Your task to perform on an android device: open sync settings in chrome Image 0: 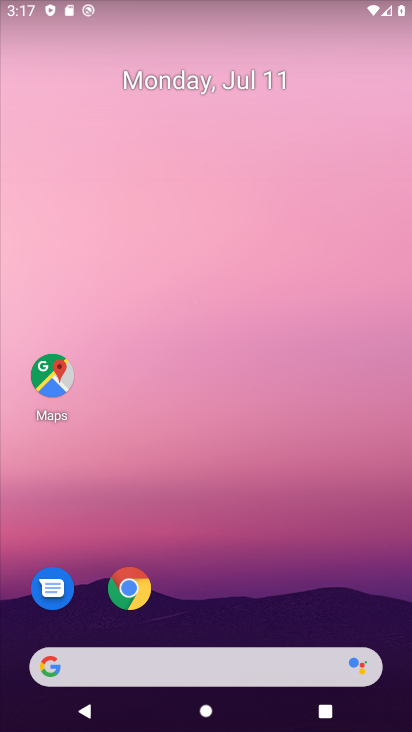
Step 0: drag from (360, 562) to (344, 81)
Your task to perform on an android device: open sync settings in chrome Image 1: 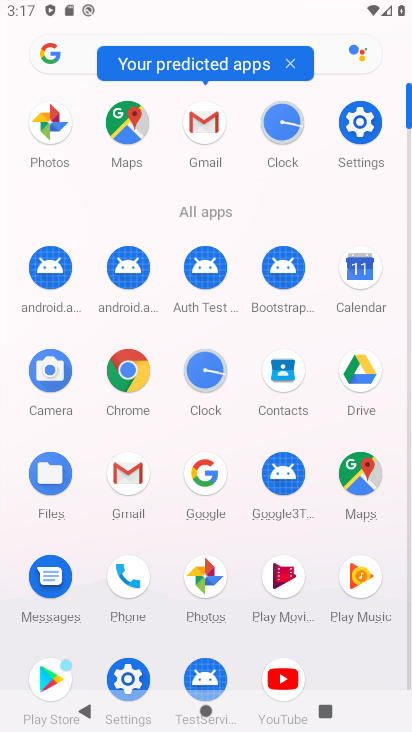
Step 1: click (130, 372)
Your task to perform on an android device: open sync settings in chrome Image 2: 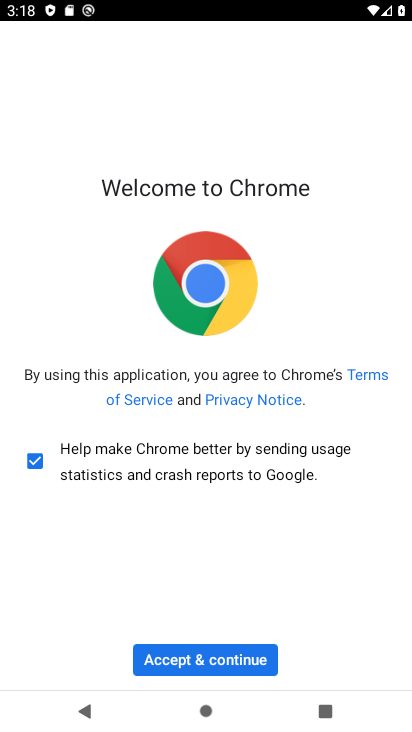
Step 2: click (230, 668)
Your task to perform on an android device: open sync settings in chrome Image 3: 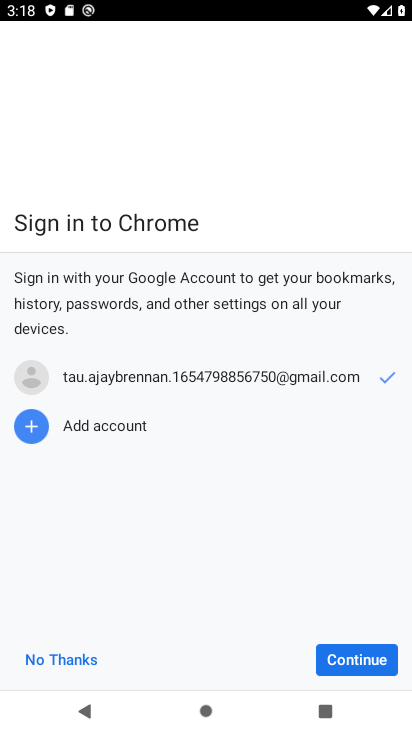
Step 3: click (359, 664)
Your task to perform on an android device: open sync settings in chrome Image 4: 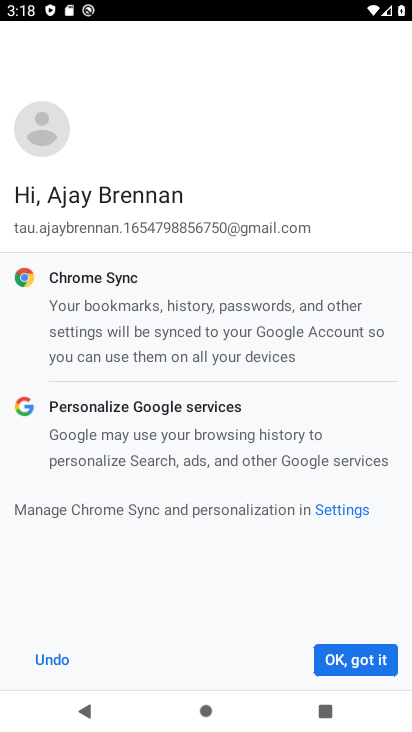
Step 4: click (357, 663)
Your task to perform on an android device: open sync settings in chrome Image 5: 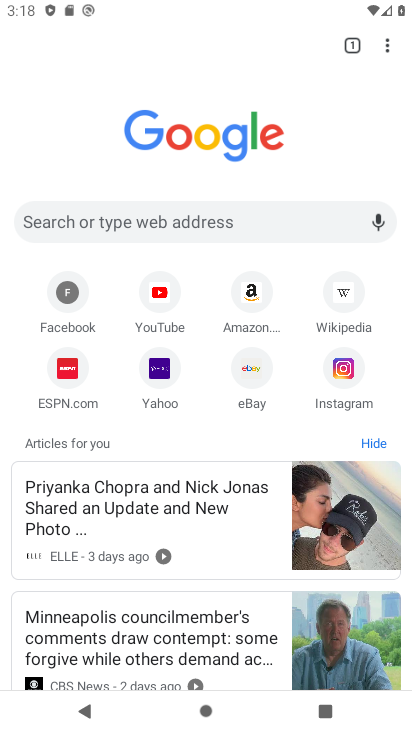
Step 5: click (385, 45)
Your task to perform on an android device: open sync settings in chrome Image 6: 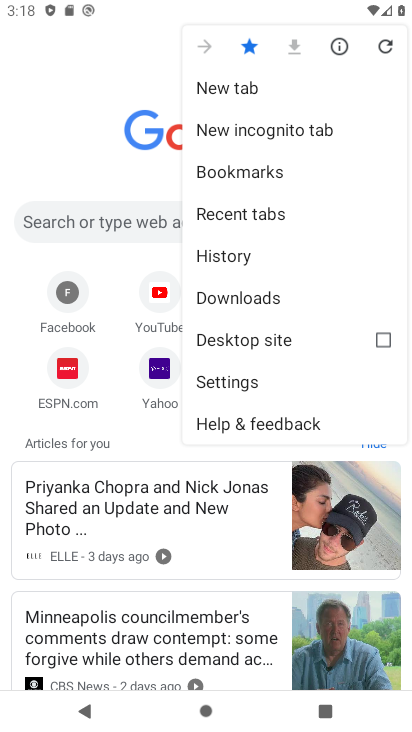
Step 6: click (251, 388)
Your task to perform on an android device: open sync settings in chrome Image 7: 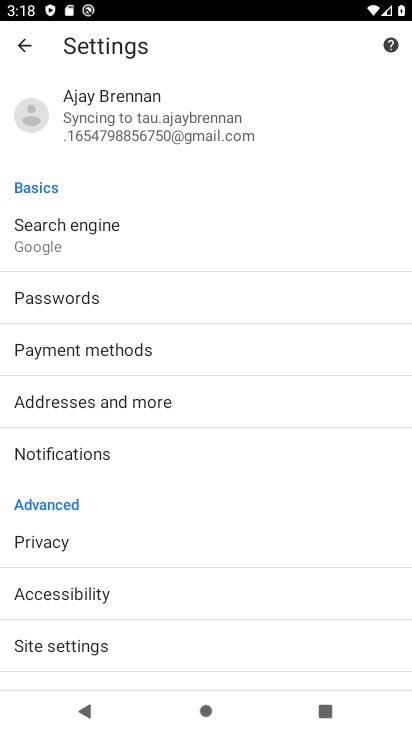
Step 7: drag from (323, 557) to (343, 346)
Your task to perform on an android device: open sync settings in chrome Image 8: 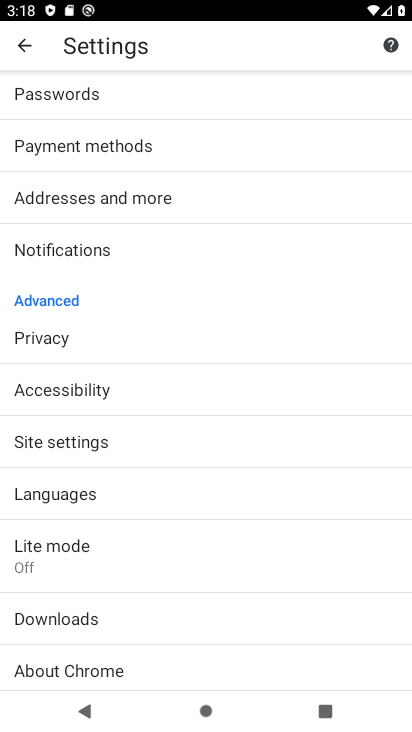
Step 8: drag from (331, 622) to (337, 334)
Your task to perform on an android device: open sync settings in chrome Image 9: 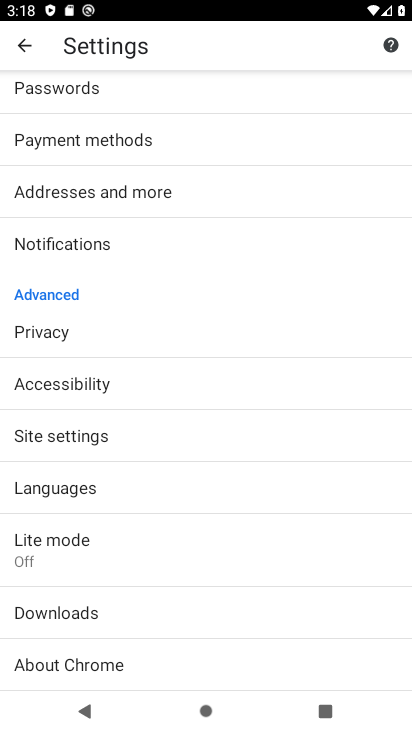
Step 9: drag from (326, 254) to (313, 371)
Your task to perform on an android device: open sync settings in chrome Image 10: 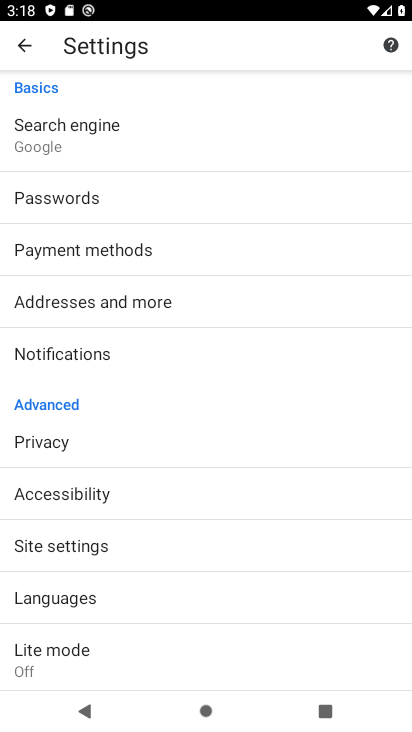
Step 10: drag from (319, 156) to (305, 367)
Your task to perform on an android device: open sync settings in chrome Image 11: 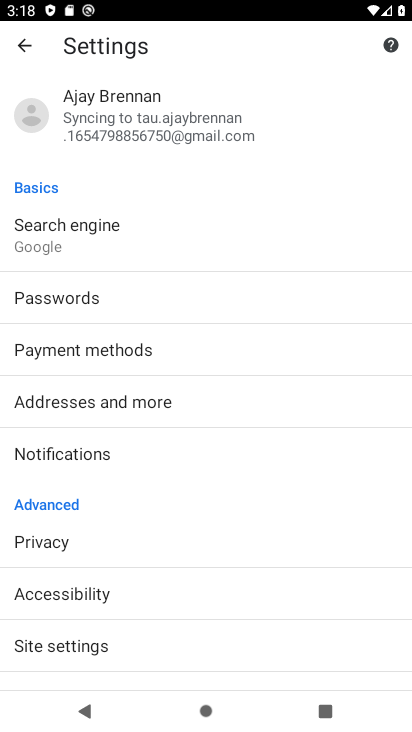
Step 11: drag from (331, 478) to (318, 341)
Your task to perform on an android device: open sync settings in chrome Image 12: 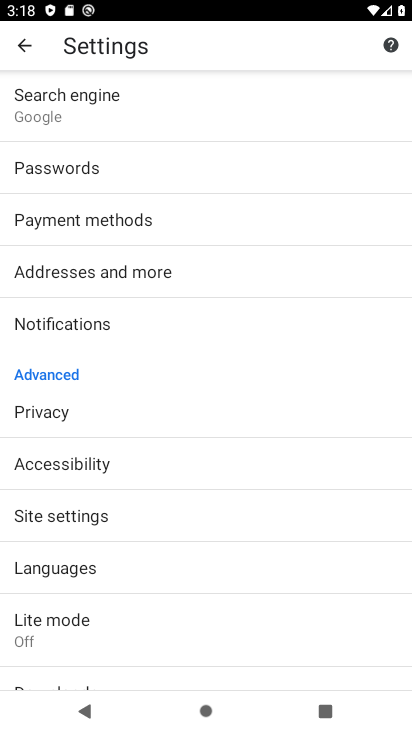
Step 12: click (304, 521)
Your task to perform on an android device: open sync settings in chrome Image 13: 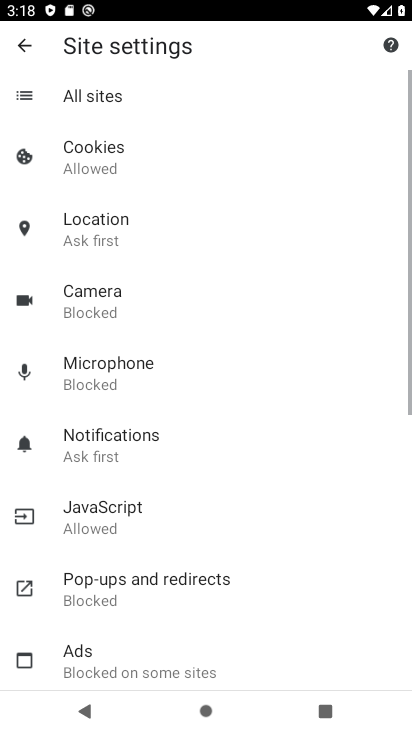
Step 13: drag from (323, 562) to (319, 406)
Your task to perform on an android device: open sync settings in chrome Image 14: 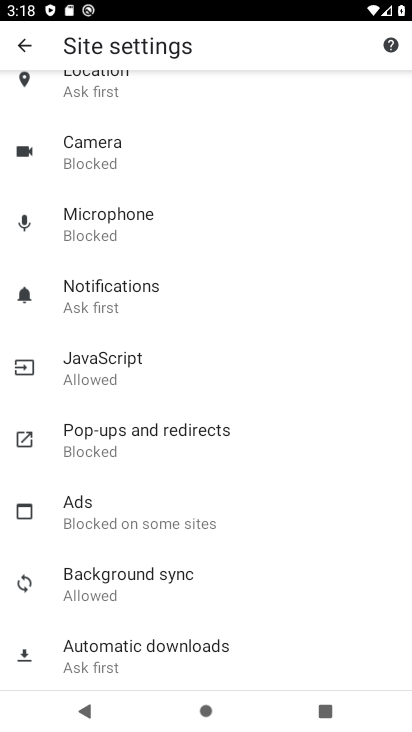
Step 14: drag from (327, 564) to (321, 413)
Your task to perform on an android device: open sync settings in chrome Image 15: 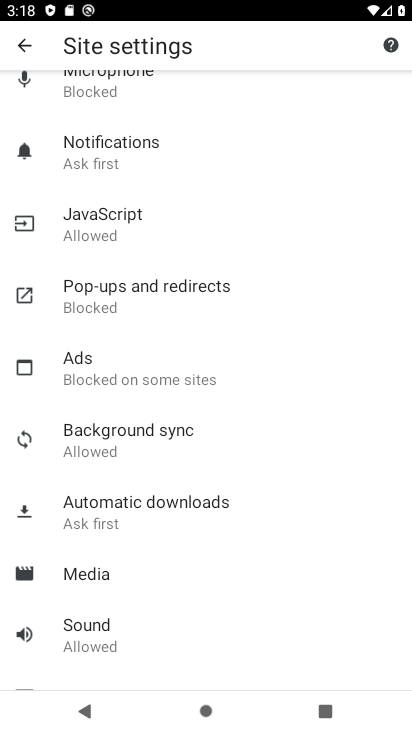
Step 15: drag from (321, 529) to (330, 365)
Your task to perform on an android device: open sync settings in chrome Image 16: 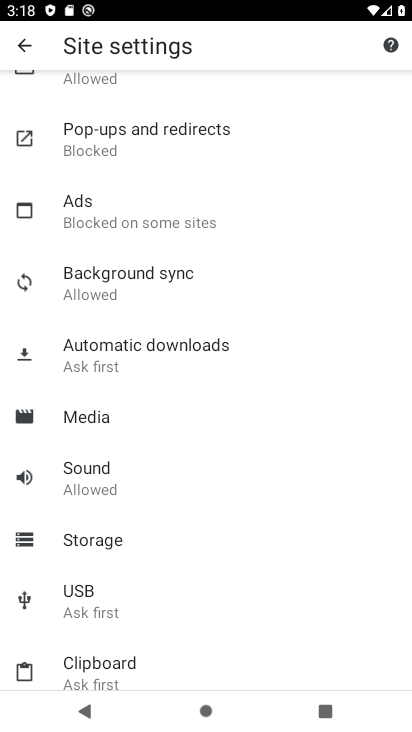
Step 16: drag from (331, 548) to (335, 364)
Your task to perform on an android device: open sync settings in chrome Image 17: 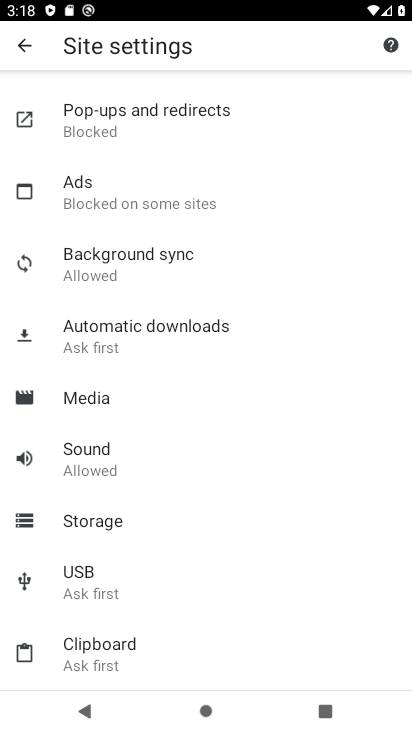
Step 17: drag from (308, 482) to (319, 365)
Your task to perform on an android device: open sync settings in chrome Image 18: 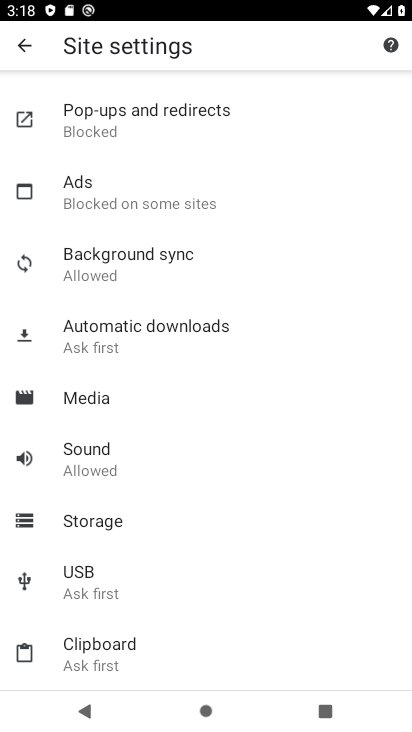
Step 18: drag from (317, 514) to (327, 369)
Your task to perform on an android device: open sync settings in chrome Image 19: 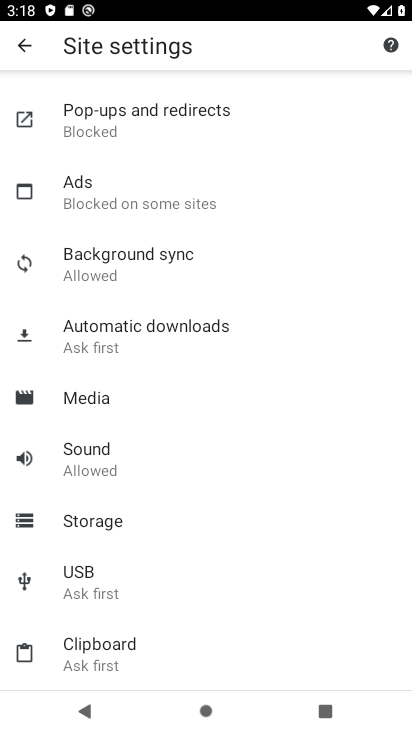
Step 19: drag from (327, 483) to (326, 358)
Your task to perform on an android device: open sync settings in chrome Image 20: 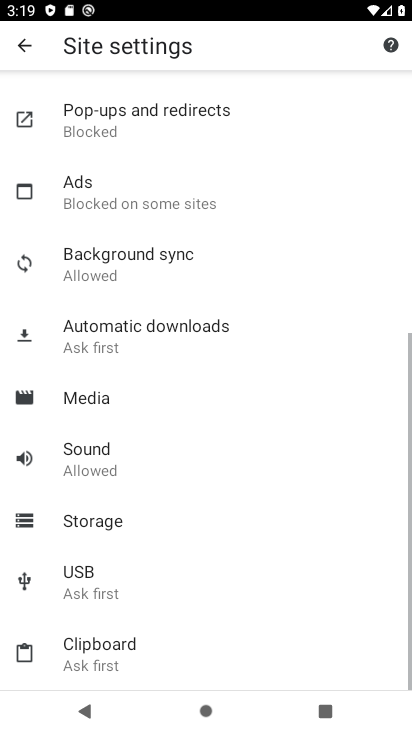
Step 20: drag from (326, 279) to (323, 438)
Your task to perform on an android device: open sync settings in chrome Image 21: 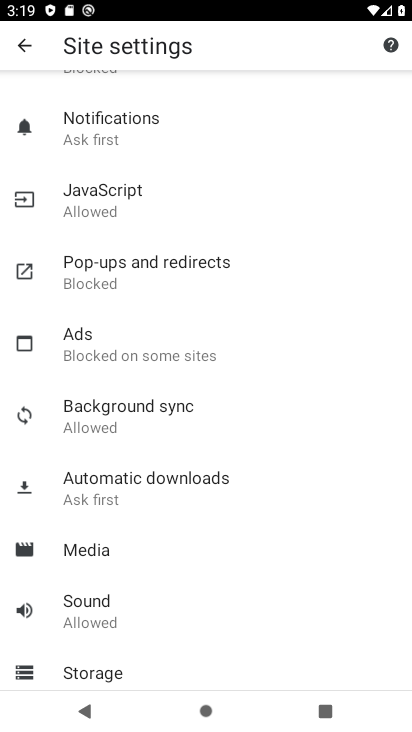
Step 21: click (201, 426)
Your task to perform on an android device: open sync settings in chrome Image 22: 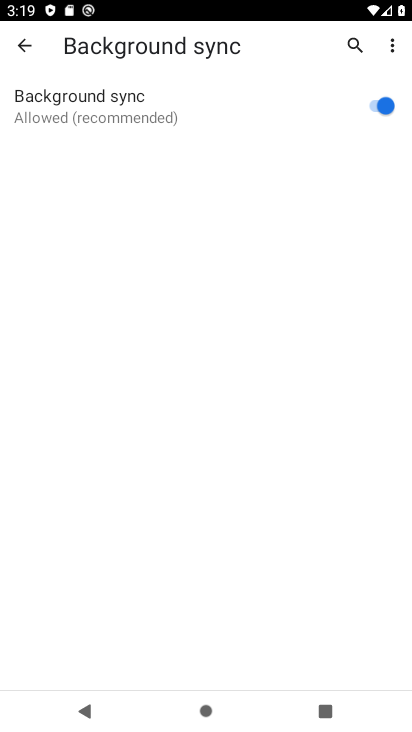
Step 22: task complete